Your task to perform on an android device: turn on priority inbox in the gmail app Image 0: 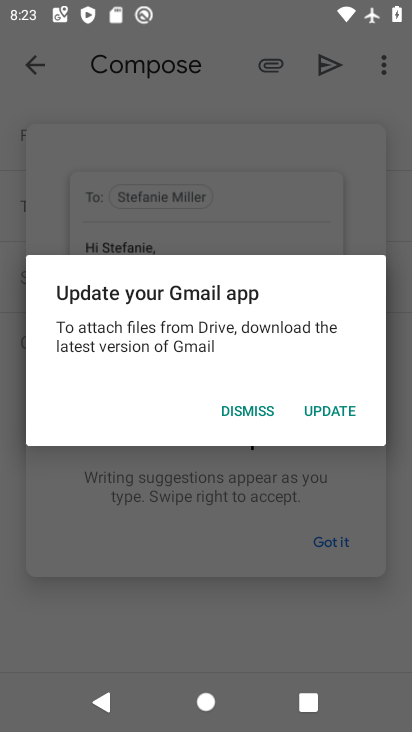
Step 0: press home button
Your task to perform on an android device: turn on priority inbox in the gmail app Image 1: 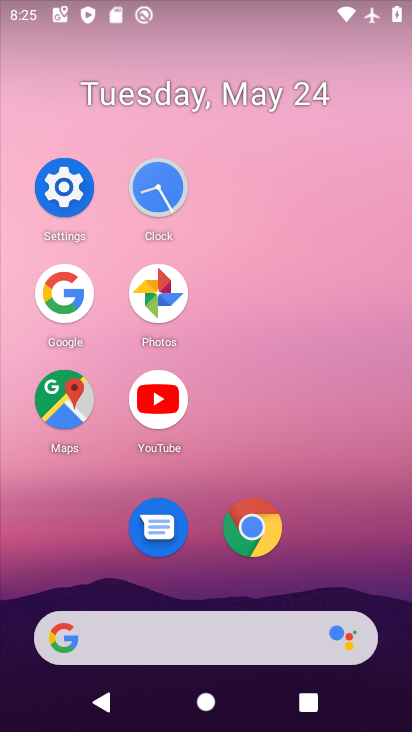
Step 1: drag from (334, 509) to (334, 122)
Your task to perform on an android device: turn on priority inbox in the gmail app Image 2: 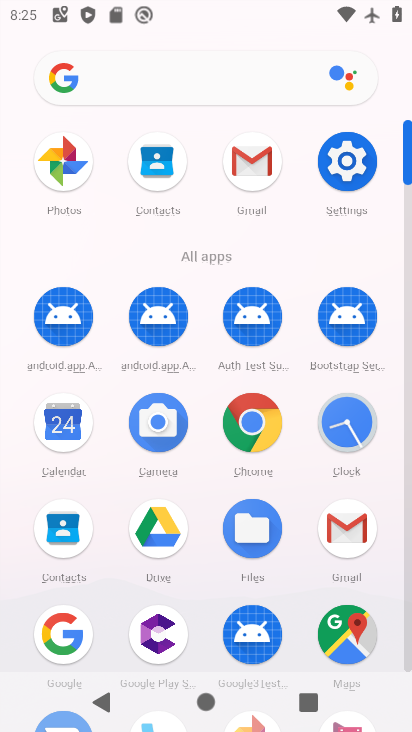
Step 2: drag from (364, 523) to (227, 326)
Your task to perform on an android device: turn on priority inbox in the gmail app Image 3: 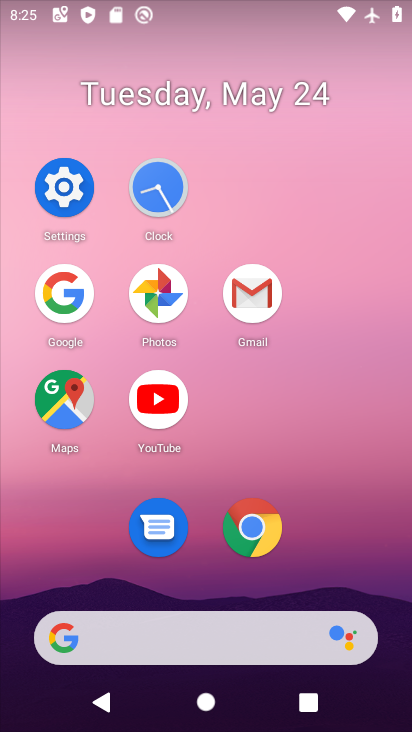
Step 3: click (254, 291)
Your task to perform on an android device: turn on priority inbox in the gmail app Image 4: 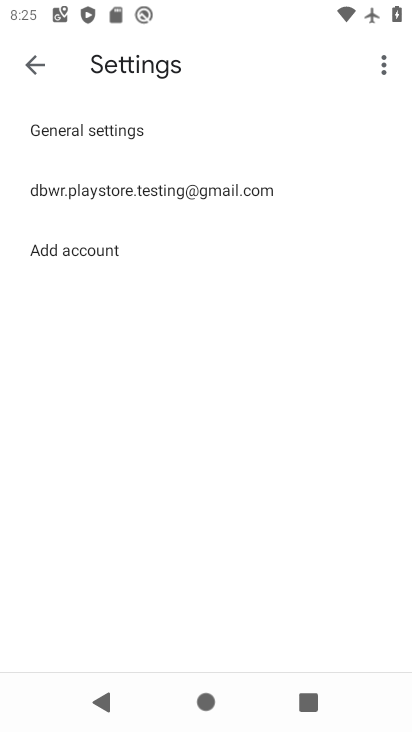
Step 4: click (262, 197)
Your task to perform on an android device: turn on priority inbox in the gmail app Image 5: 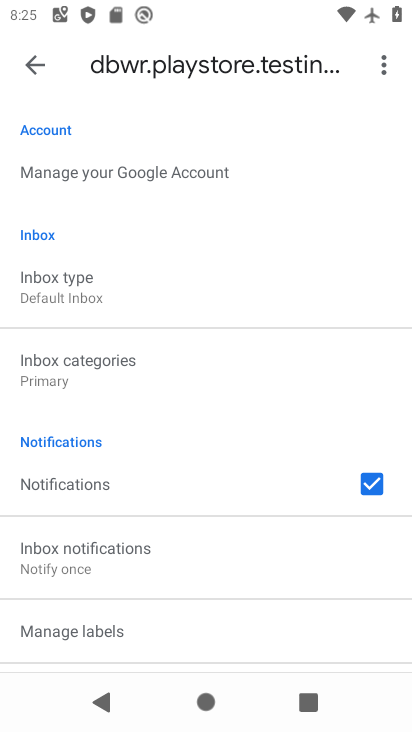
Step 5: click (159, 286)
Your task to perform on an android device: turn on priority inbox in the gmail app Image 6: 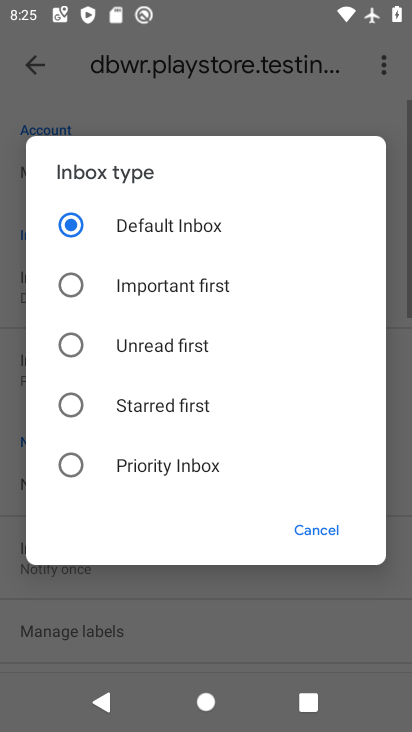
Step 6: click (175, 472)
Your task to perform on an android device: turn on priority inbox in the gmail app Image 7: 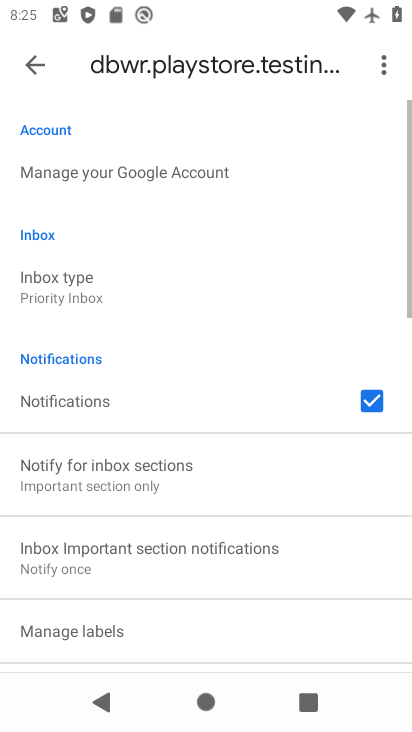
Step 7: task complete